Your task to perform on an android device: Go to wifi settings Image 0: 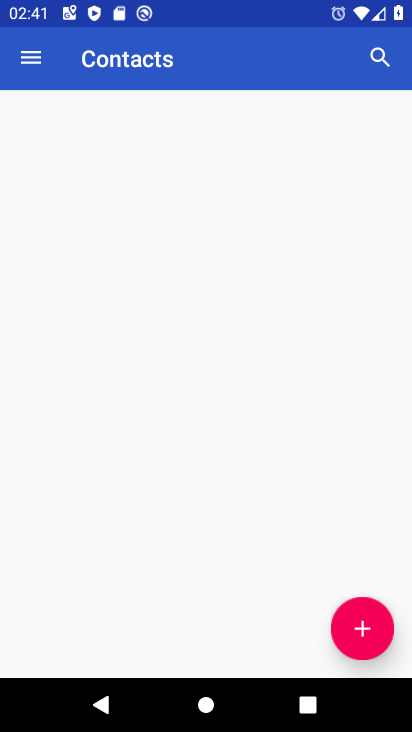
Step 0: press home button
Your task to perform on an android device: Go to wifi settings Image 1: 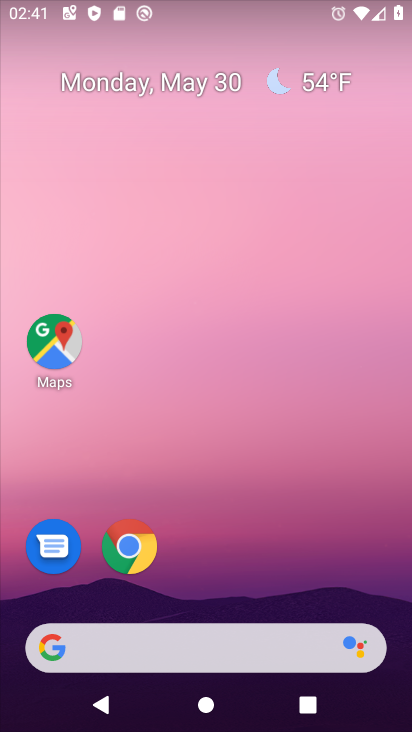
Step 1: click (228, 595)
Your task to perform on an android device: Go to wifi settings Image 2: 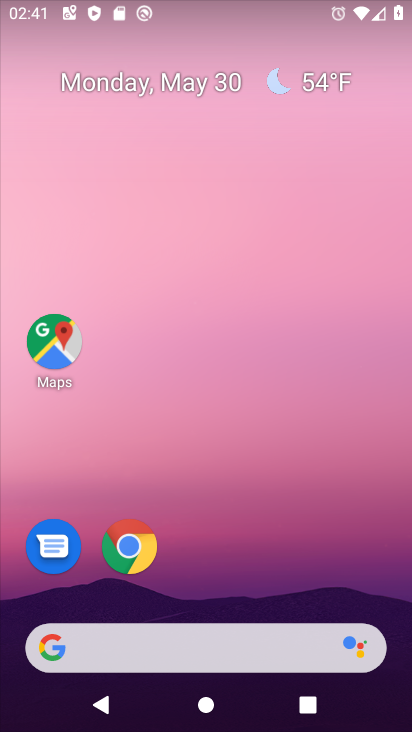
Step 2: drag from (234, 556) to (263, 131)
Your task to perform on an android device: Go to wifi settings Image 3: 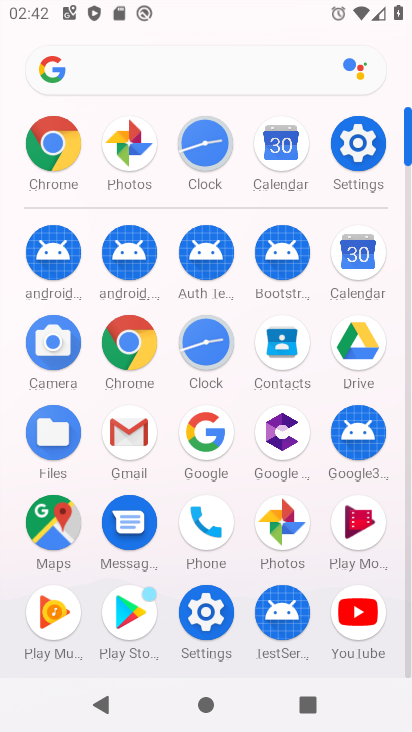
Step 3: click (356, 133)
Your task to perform on an android device: Go to wifi settings Image 4: 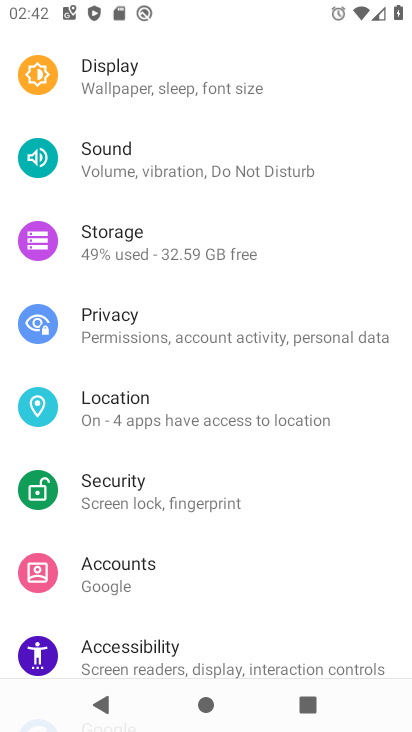
Step 4: drag from (190, 134) to (190, 592)
Your task to perform on an android device: Go to wifi settings Image 5: 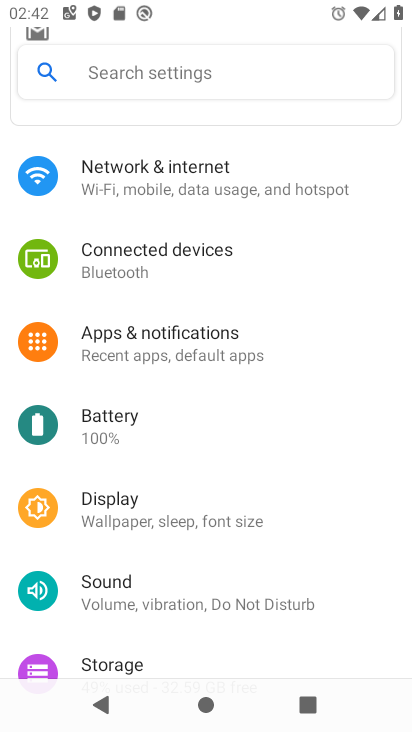
Step 5: click (198, 171)
Your task to perform on an android device: Go to wifi settings Image 6: 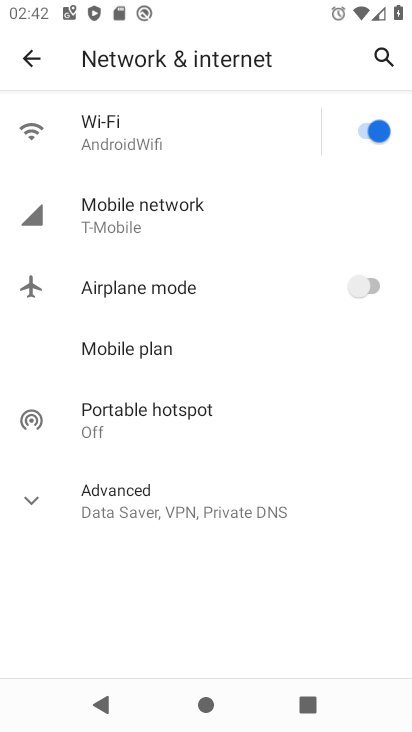
Step 6: click (178, 124)
Your task to perform on an android device: Go to wifi settings Image 7: 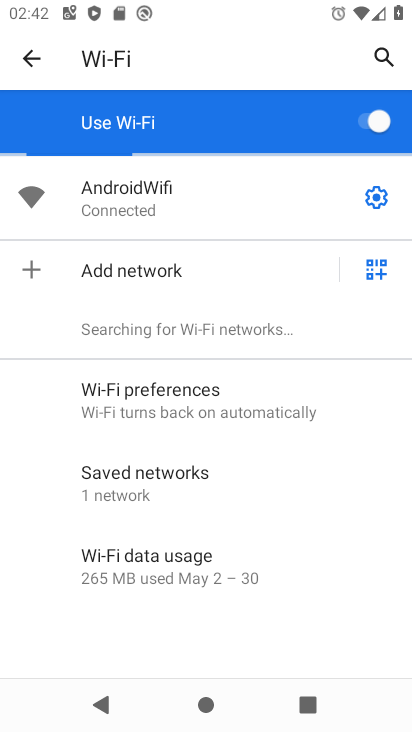
Step 7: drag from (227, 555) to (235, 522)
Your task to perform on an android device: Go to wifi settings Image 8: 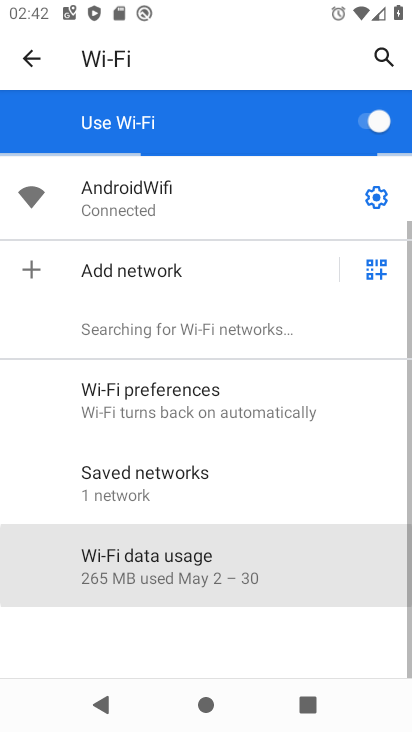
Step 8: click (235, 414)
Your task to perform on an android device: Go to wifi settings Image 9: 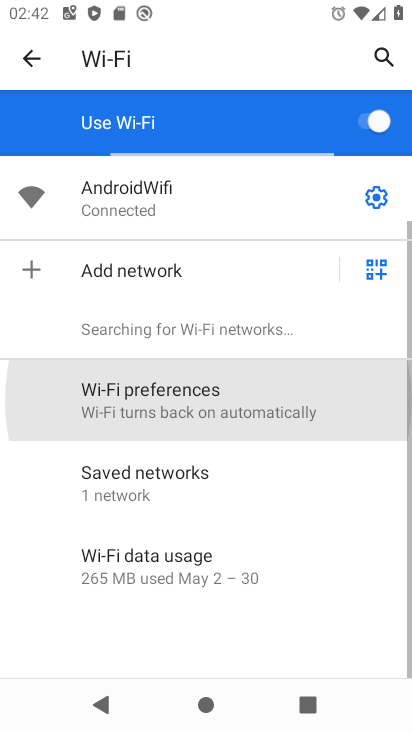
Step 9: task complete